Your task to perform on an android device: turn off picture-in-picture Image 0: 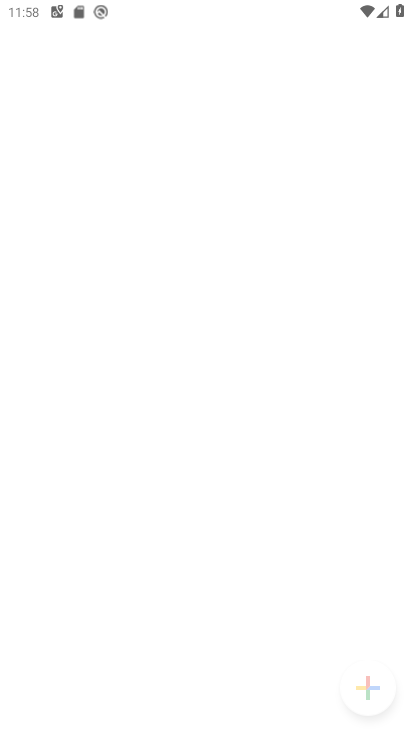
Step 0: drag from (174, 689) to (162, 65)
Your task to perform on an android device: turn off picture-in-picture Image 1: 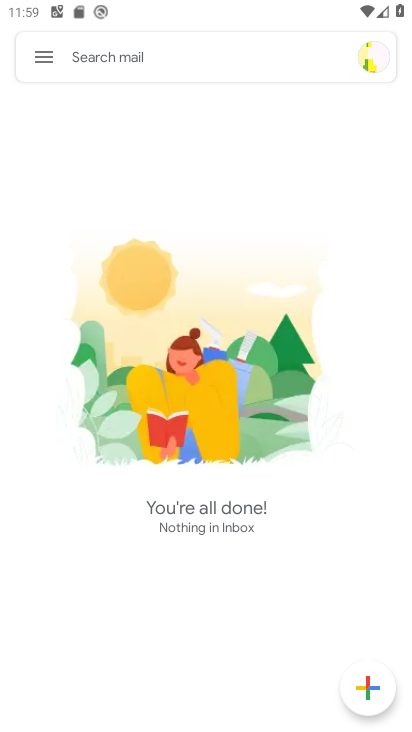
Step 1: press back button
Your task to perform on an android device: turn off picture-in-picture Image 2: 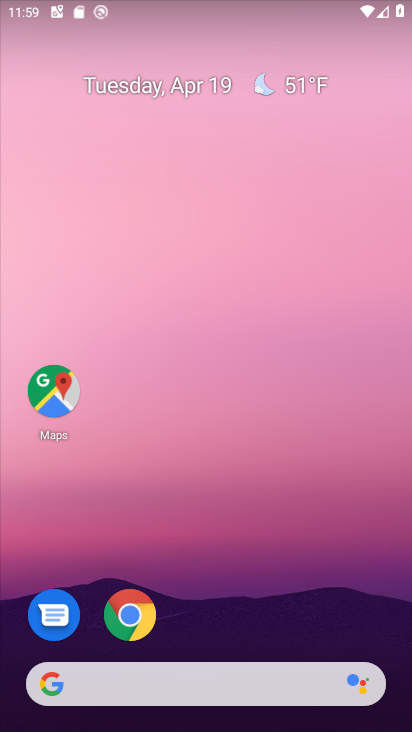
Step 2: click (140, 602)
Your task to perform on an android device: turn off picture-in-picture Image 3: 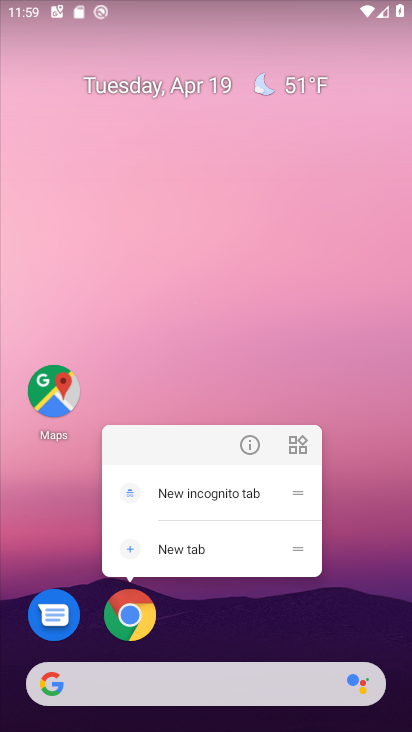
Step 3: click (247, 445)
Your task to perform on an android device: turn off picture-in-picture Image 4: 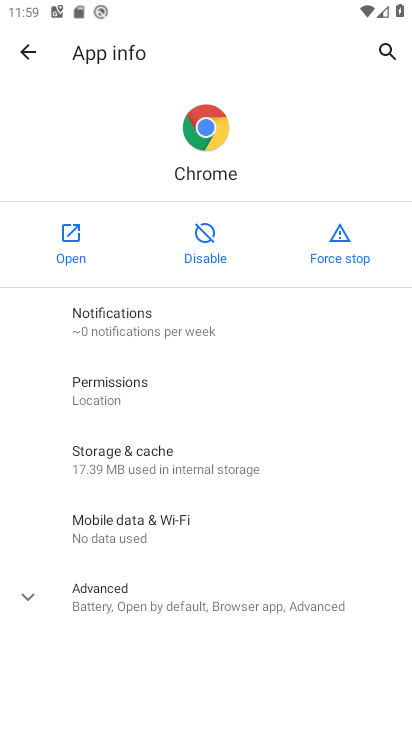
Step 4: click (145, 585)
Your task to perform on an android device: turn off picture-in-picture Image 5: 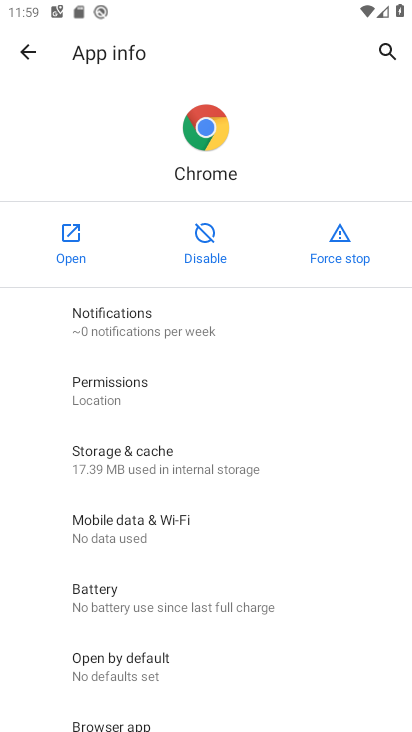
Step 5: drag from (198, 594) to (212, 181)
Your task to perform on an android device: turn off picture-in-picture Image 6: 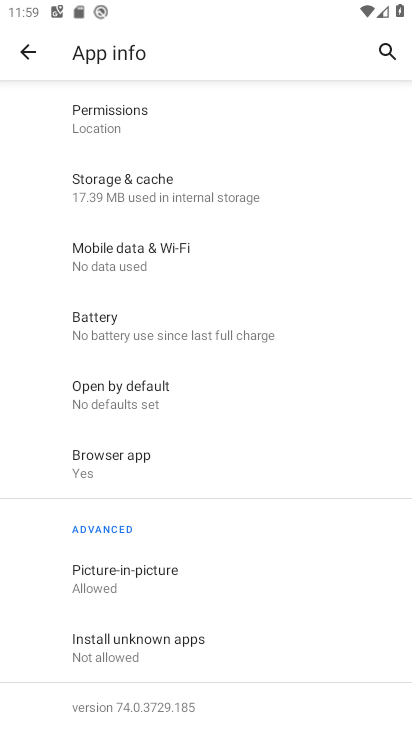
Step 6: click (173, 587)
Your task to perform on an android device: turn off picture-in-picture Image 7: 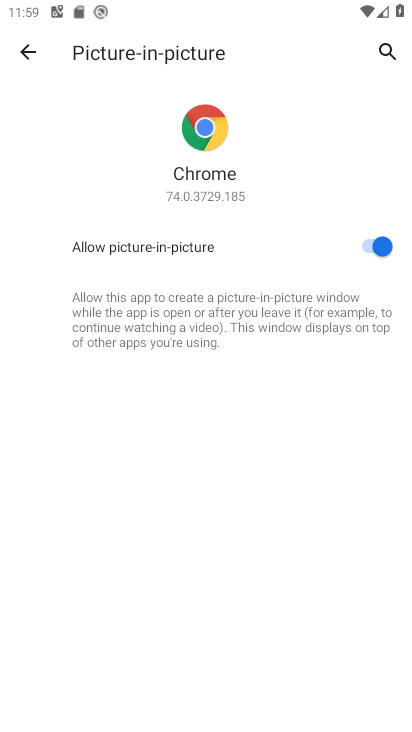
Step 7: click (376, 245)
Your task to perform on an android device: turn off picture-in-picture Image 8: 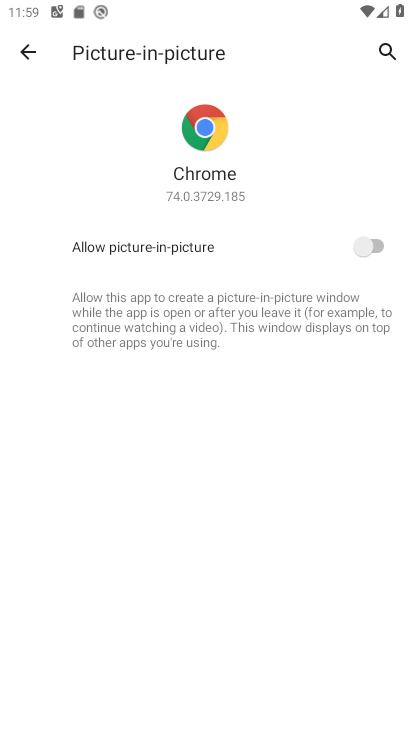
Step 8: task complete